Your task to perform on an android device: check data usage Image 0: 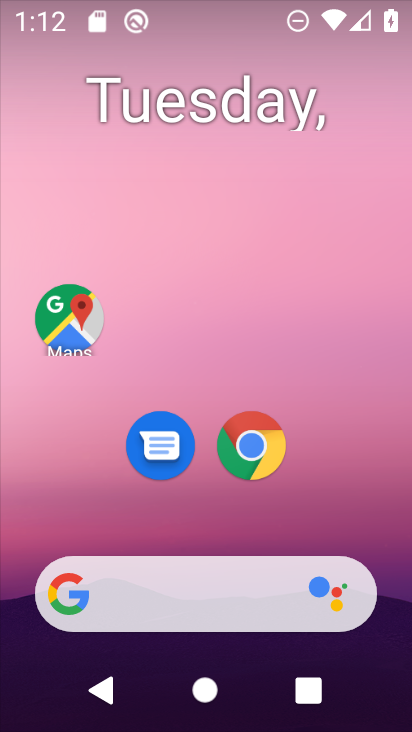
Step 0: drag from (258, 542) to (308, 594)
Your task to perform on an android device: check data usage Image 1: 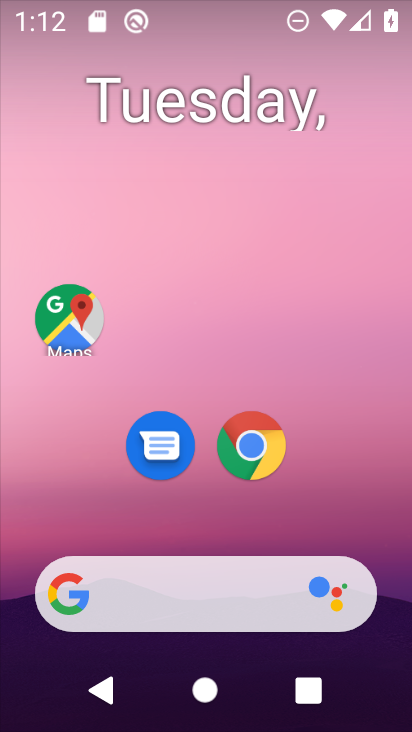
Step 1: drag from (308, 60) to (351, 467)
Your task to perform on an android device: check data usage Image 2: 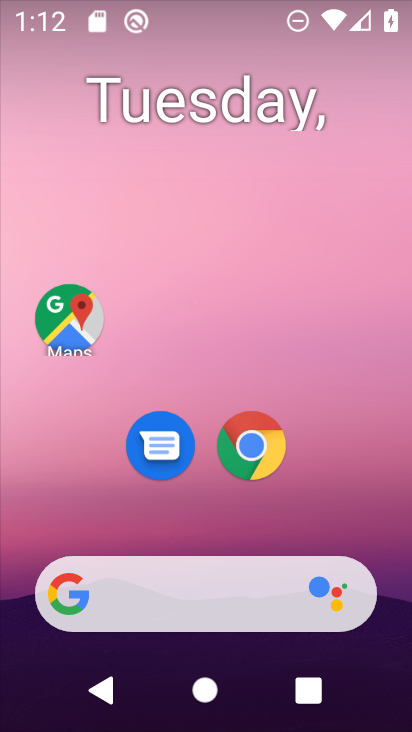
Step 2: drag from (275, 34) to (322, 432)
Your task to perform on an android device: check data usage Image 3: 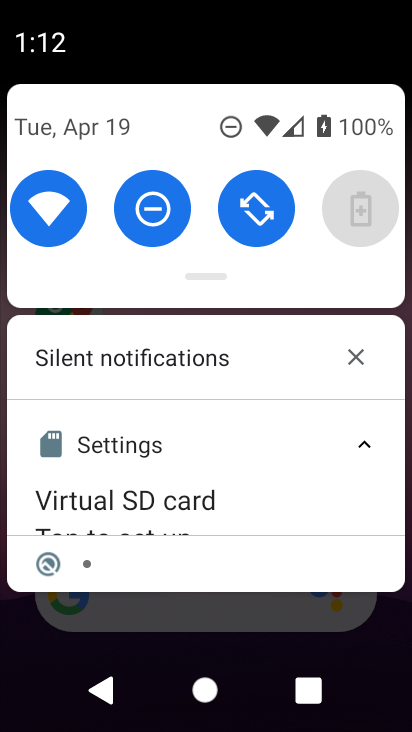
Step 3: drag from (273, 270) to (279, 593)
Your task to perform on an android device: check data usage Image 4: 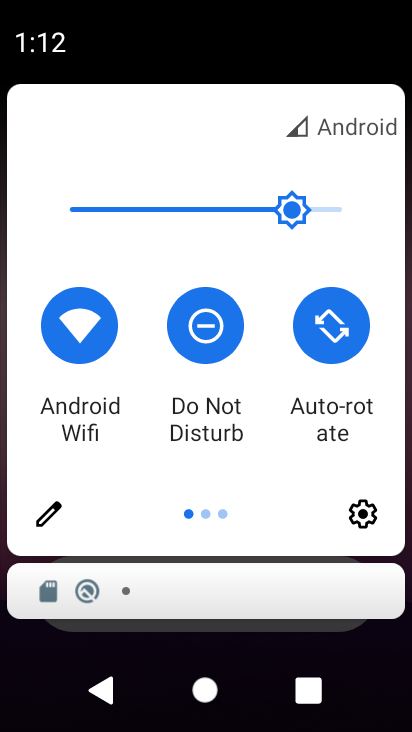
Step 4: click (367, 509)
Your task to perform on an android device: check data usage Image 5: 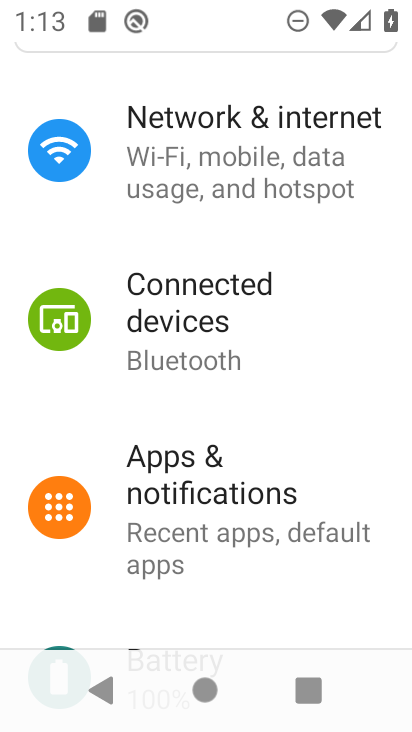
Step 5: click (261, 173)
Your task to perform on an android device: check data usage Image 6: 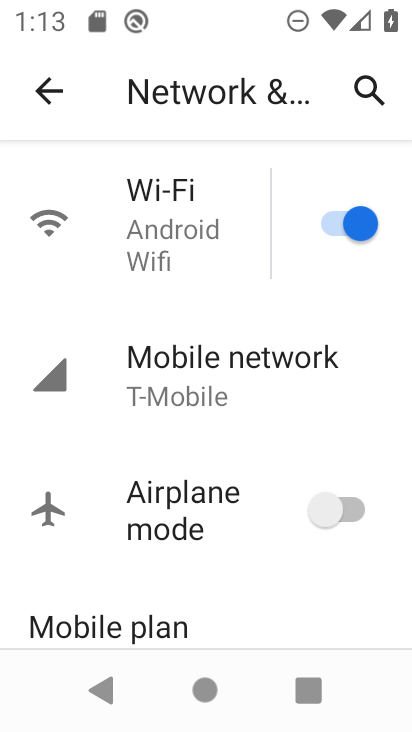
Step 6: click (221, 375)
Your task to perform on an android device: check data usage Image 7: 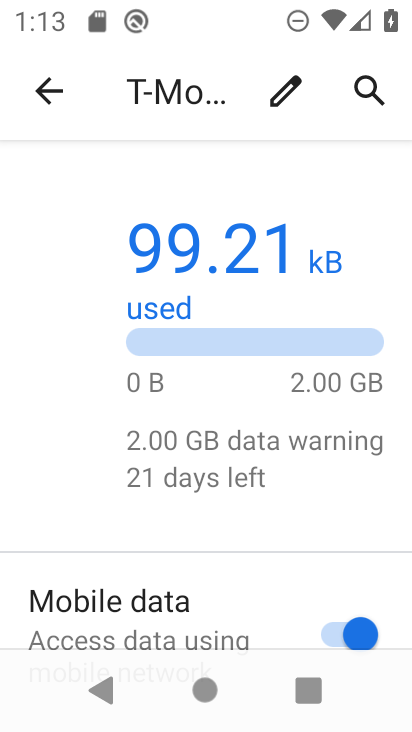
Step 7: drag from (179, 520) to (282, 161)
Your task to perform on an android device: check data usage Image 8: 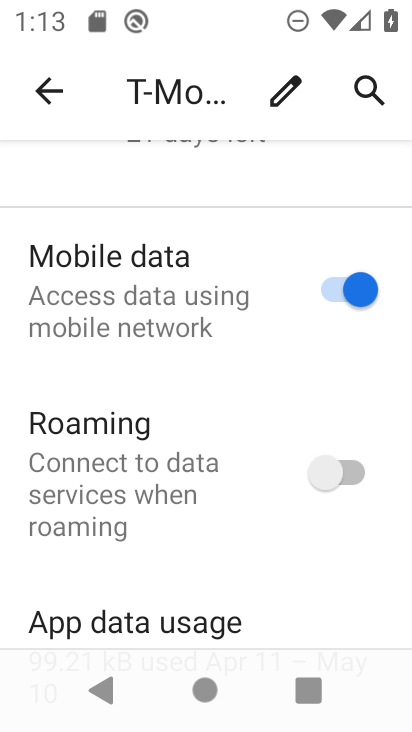
Step 8: drag from (164, 522) to (186, 219)
Your task to perform on an android device: check data usage Image 9: 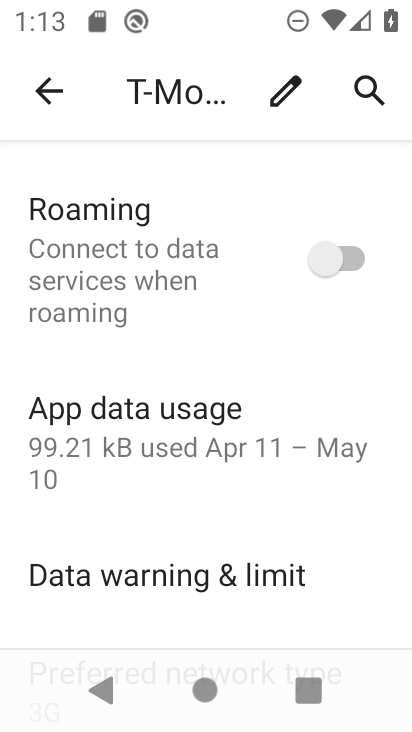
Step 9: click (196, 431)
Your task to perform on an android device: check data usage Image 10: 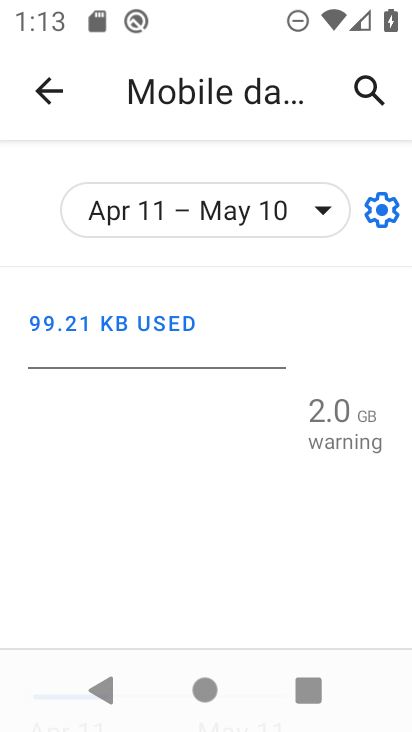
Step 10: task complete